Your task to perform on an android device: Open calendar and show me the second week of next month Image 0: 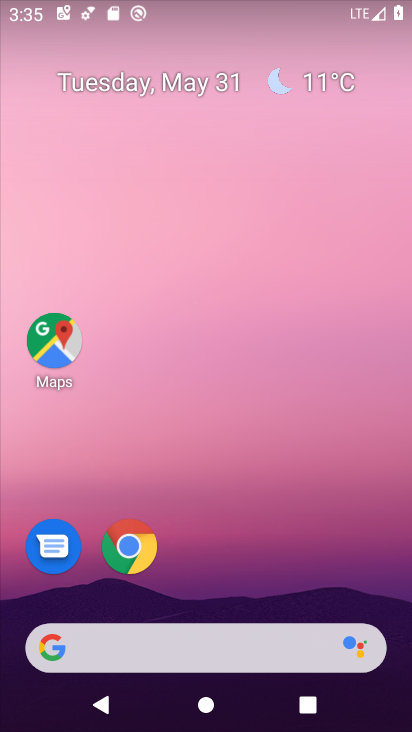
Step 0: drag from (342, 535) to (236, 14)
Your task to perform on an android device: Open calendar and show me the second week of next month Image 1: 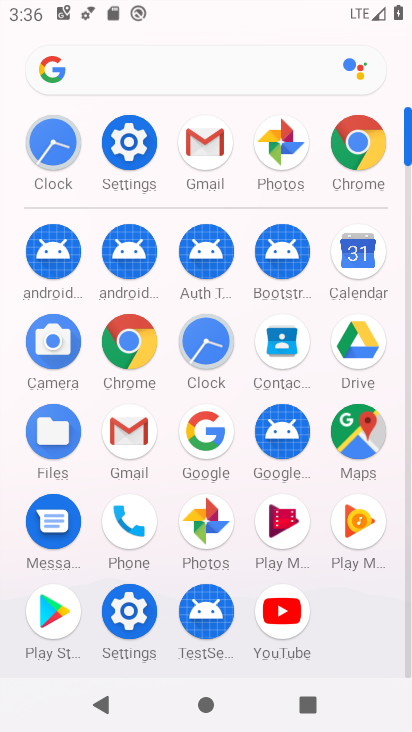
Step 1: click (369, 253)
Your task to perform on an android device: Open calendar and show me the second week of next month Image 2: 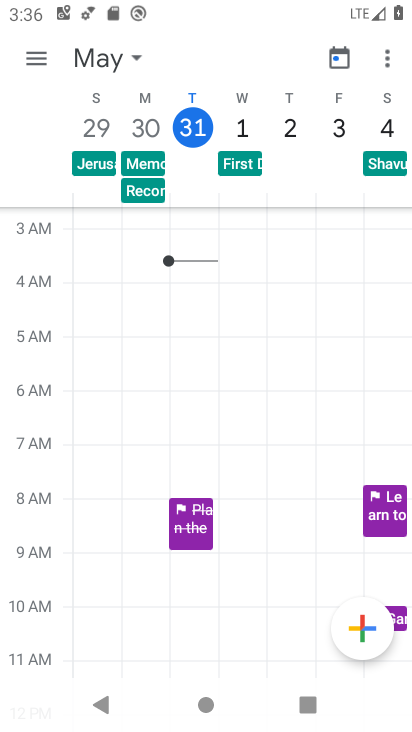
Step 2: click (111, 59)
Your task to perform on an android device: Open calendar and show me the second week of next month Image 3: 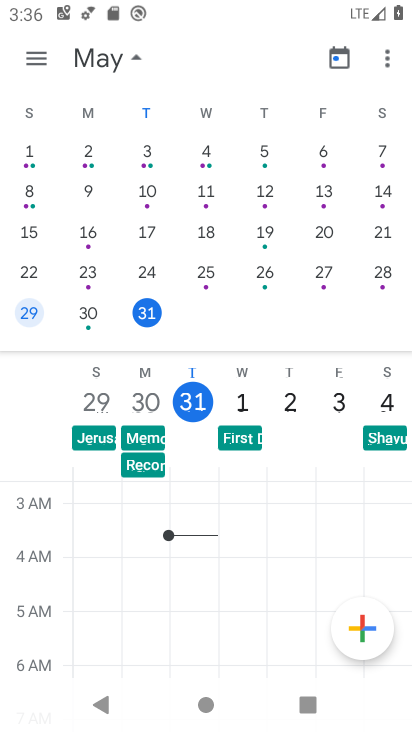
Step 3: drag from (346, 228) to (50, 271)
Your task to perform on an android device: Open calendar and show me the second week of next month Image 4: 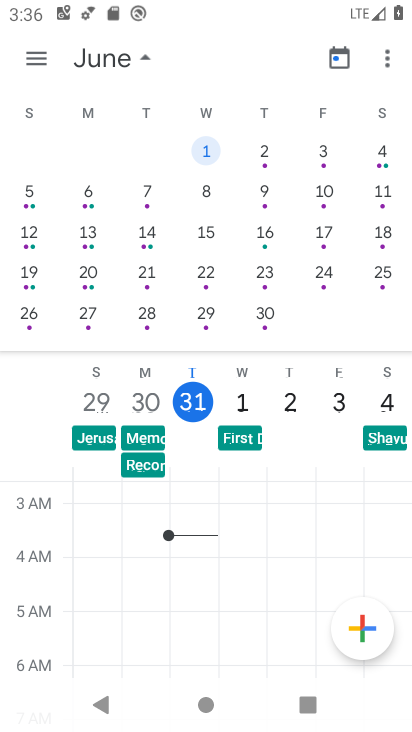
Step 4: click (36, 188)
Your task to perform on an android device: Open calendar and show me the second week of next month Image 5: 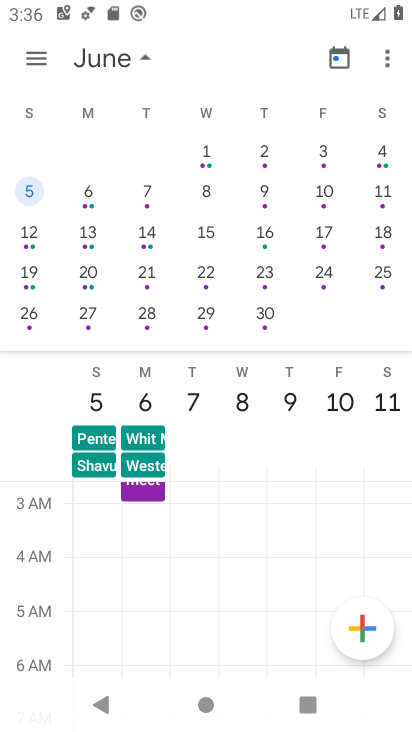
Step 5: task complete